Your task to perform on an android device: Show me popular videos on Youtube Image 0: 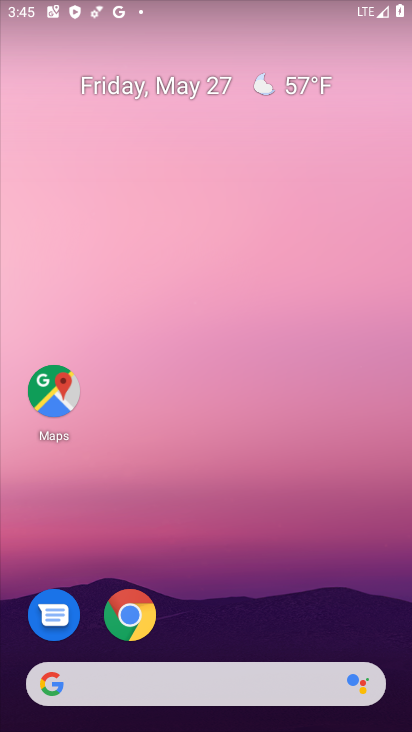
Step 0: drag from (235, 626) to (248, 42)
Your task to perform on an android device: Show me popular videos on Youtube Image 1: 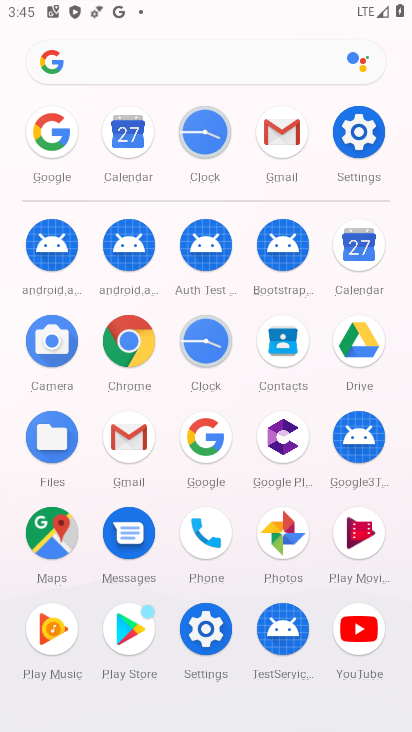
Step 1: click (354, 650)
Your task to perform on an android device: Show me popular videos on Youtube Image 2: 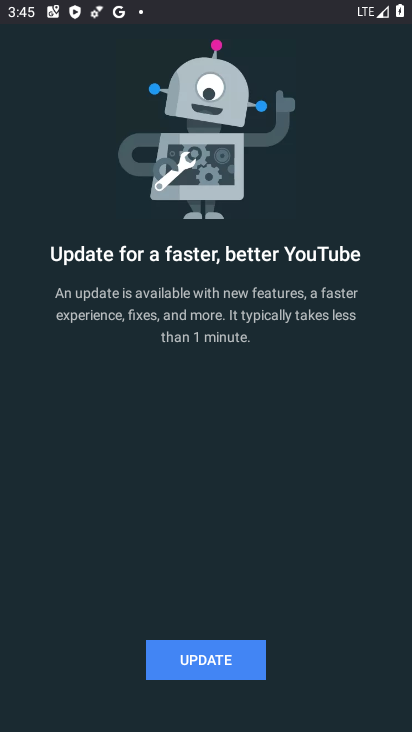
Step 2: click (185, 679)
Your task to perform on an android device: Show me popular videos on Youtube Image 3: 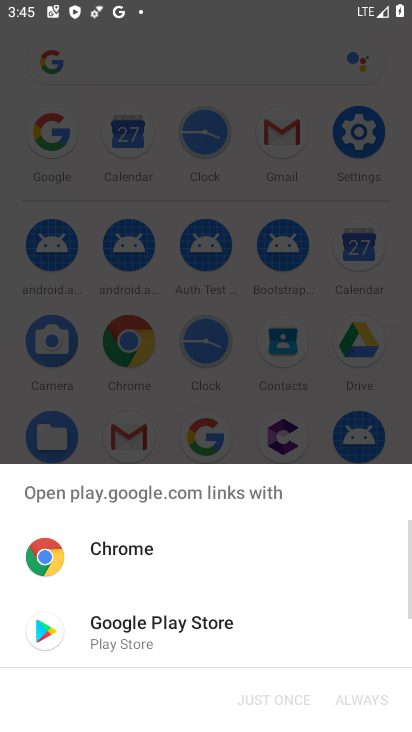
Step 3: click (118, 619)
Your task to perform on an android device: Show me popular videos on Youtube Image 4: 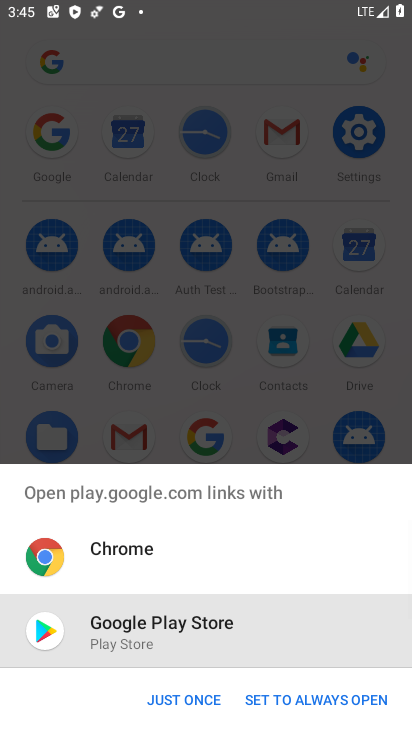
Step 4: click (273, 708)
Your task to perform on an android device: Show me popular videos on Youtube Image 5: 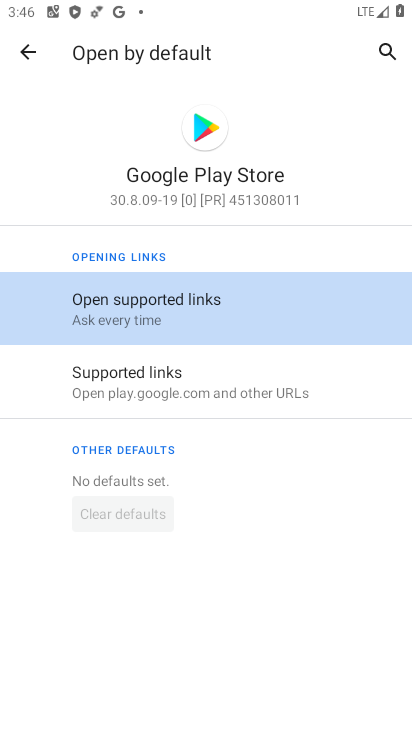
Step 5: click (147, 314)
Your task to perform on an android device: Show me popular videos on Youtube Image 6: 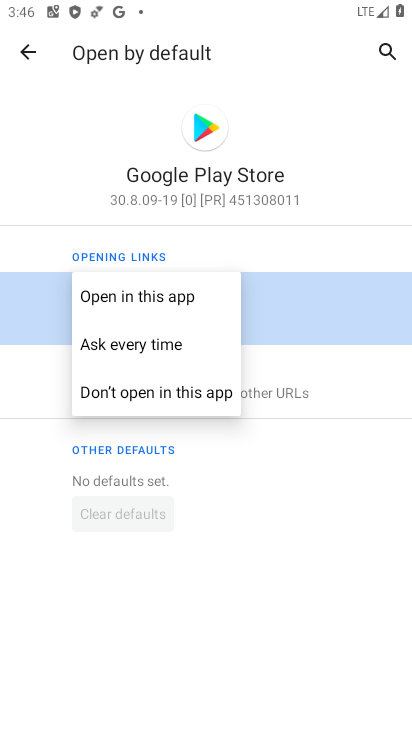
Step 6: click (116, 296)
Your task to perform on an android device: Show me popular videos on Youtube Image 7: 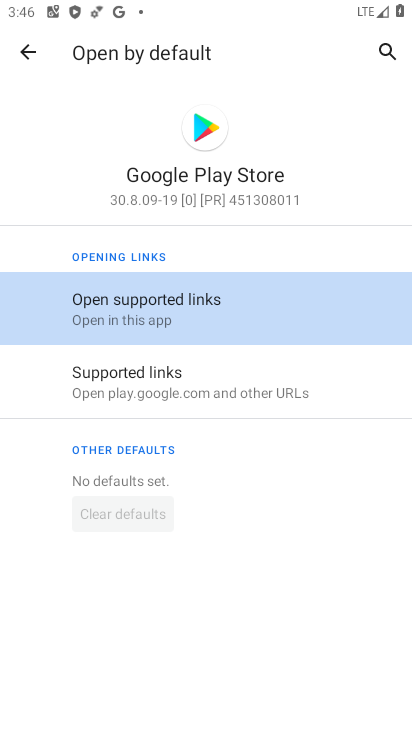
Step 7: click (19, 54)
Your task to perform on an android device: Show me popular videos on Youtube Image 8: 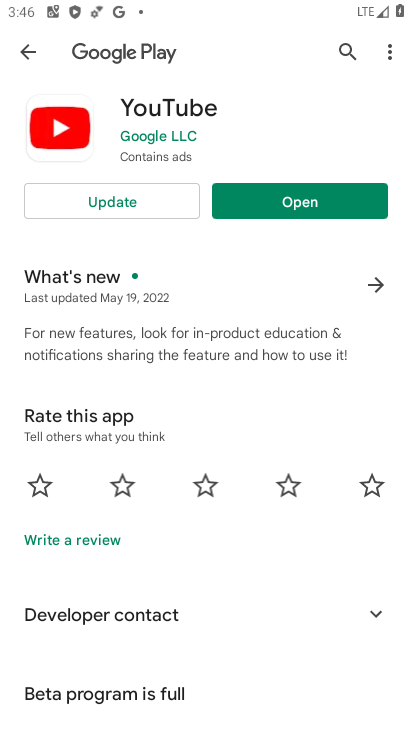
Step 8: click (79, 215)
Your task to perform on an android device: Show me popular videos on Youtube Image 9: 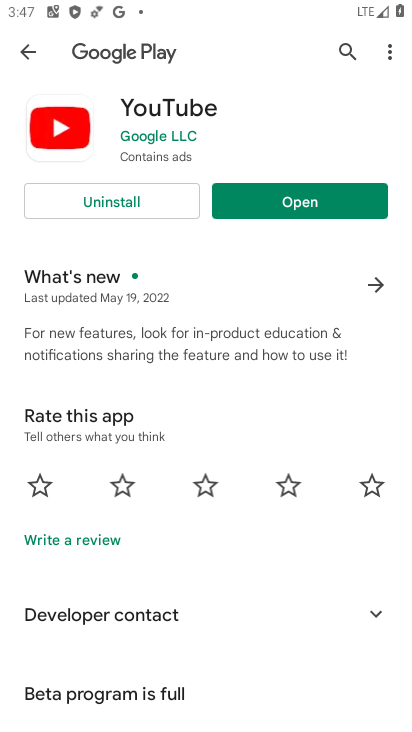
Step 9: click (287, 207)
Your task to perform on an android device: Show me popular videos on Youtube Image 10: 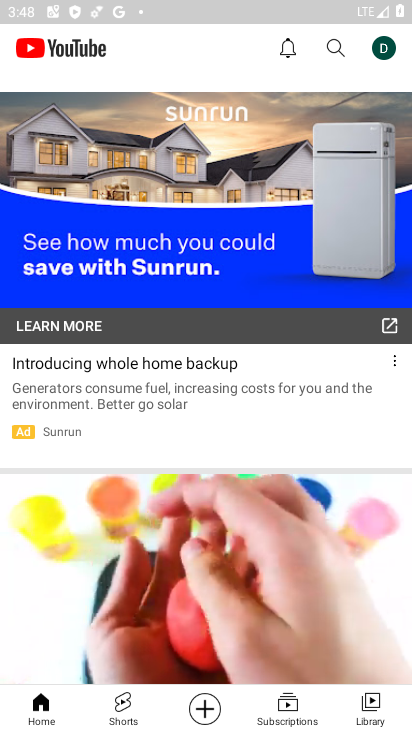
Step 10: task complete